Your task to perform on an android device: all mails in gmail Image 0: 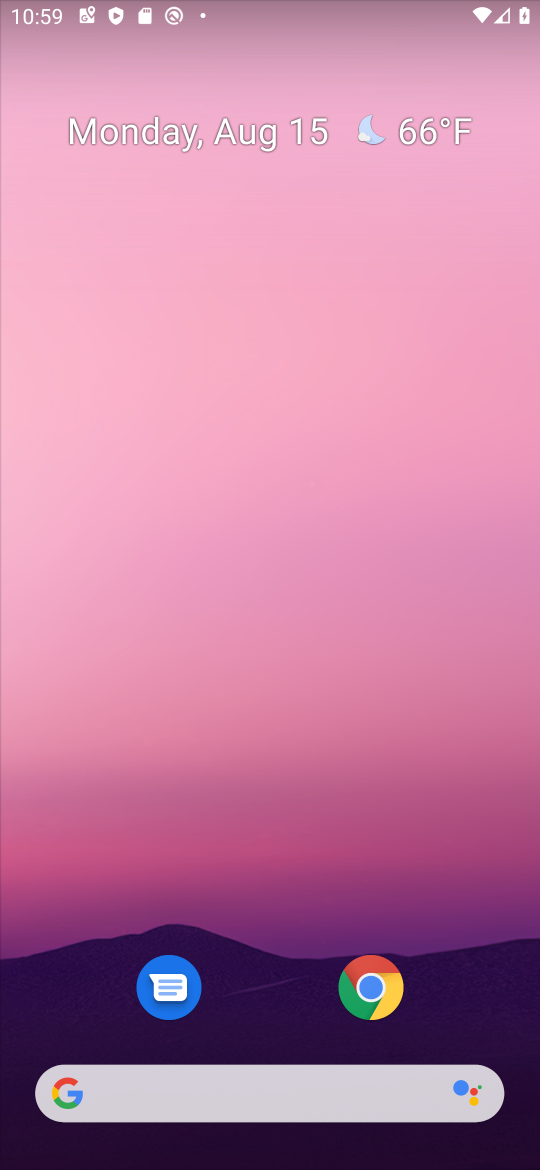
Step 0: drag from (314, 1068) to (48, 2)
Your task to perform on an android device: all mails in gmail Image 1: 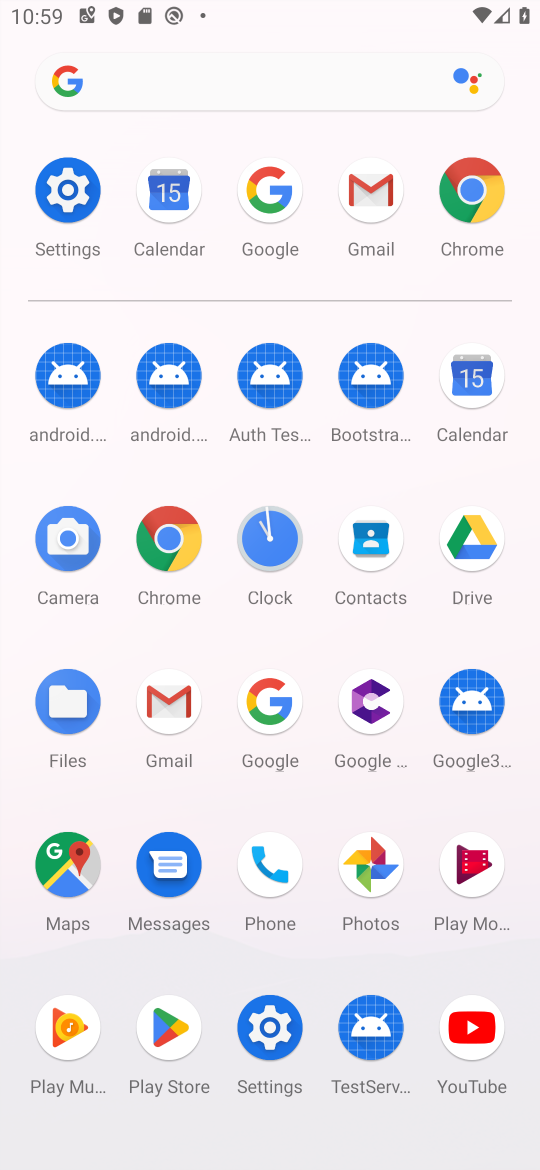
Step 1: click (173, 691)
Your task to perform on an android device: all mails in gmail Image 2: 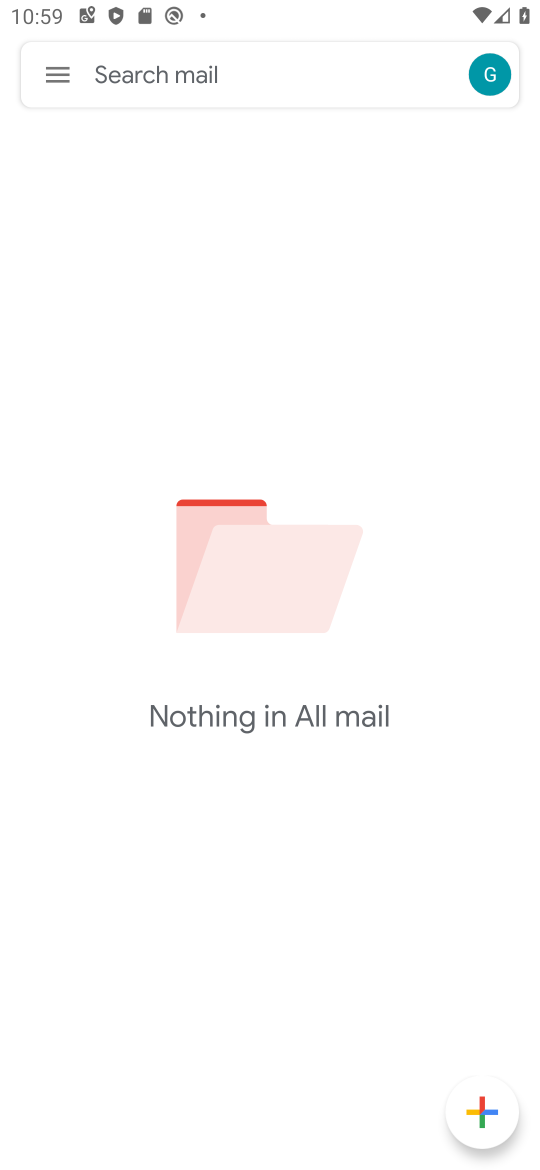
Step 2: task complete